Your task to perform on an android device: Open Google Chrome Image 0: 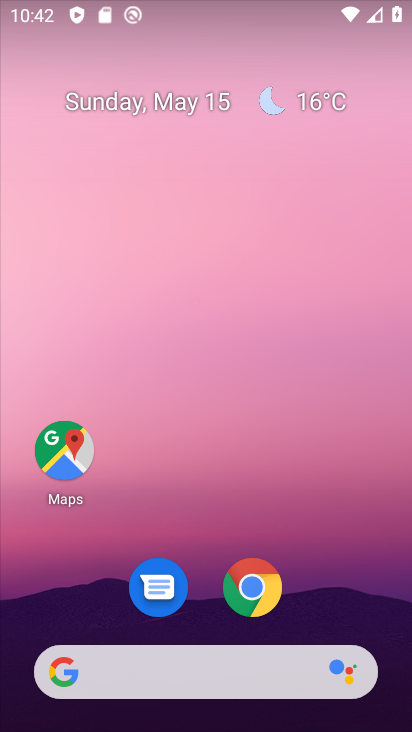
Step 0: drag from (338, 585) to (253, 22)
Your task to perform on an android device: Open Google Chrome Image 1: 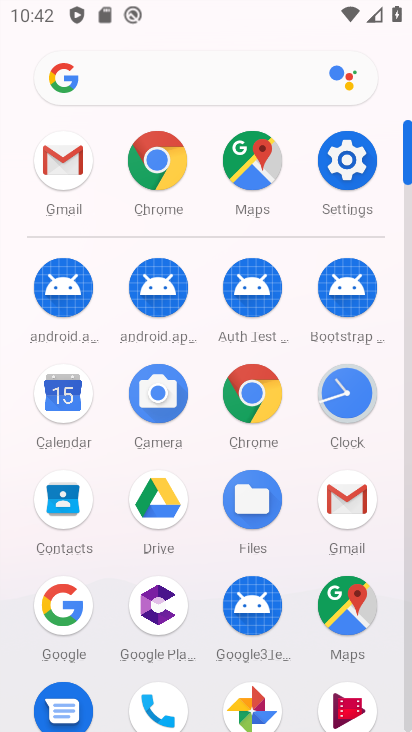
Step 1: drag from (17, 530) to (10, 210)
Your task to perform on an android device: Open Google Chrome Image 2: 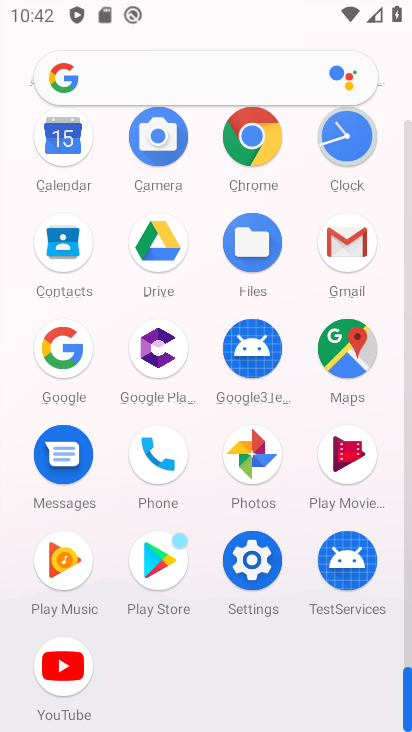
Step 2: click (249, 135)
Your task to perform on an android device: Open Google Chrome Image 3: 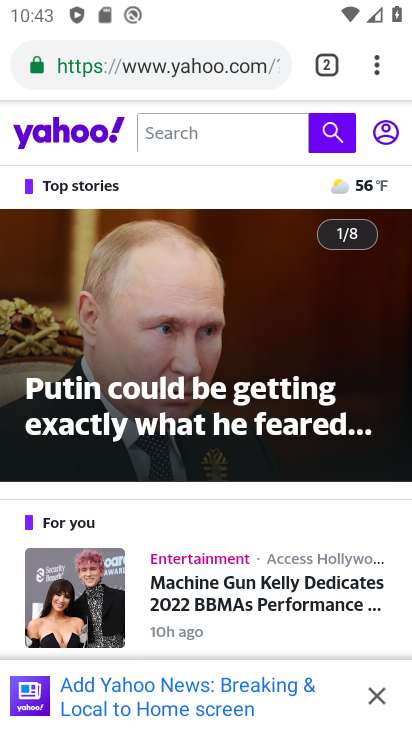
Step 3: task complete